Your task to perform on an android device: move an email to a new category in the gmail app Image 0: 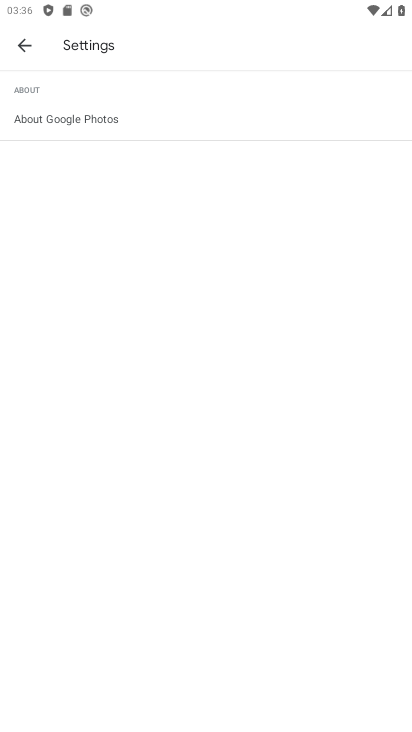
Step 0: press home button
Your task to perform on an android device: move an email to a new category in the gmail app Image 1: 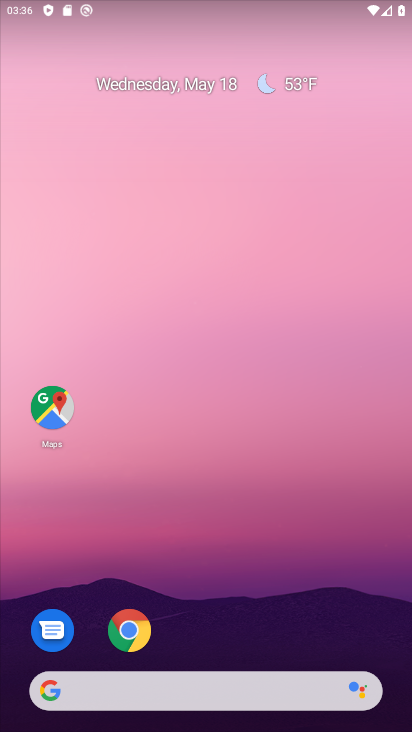
Step 1: drag from (198, 710) to (204, 11)
Your task to perform on an android device: move an email to a new category in the gmail app Image 2: 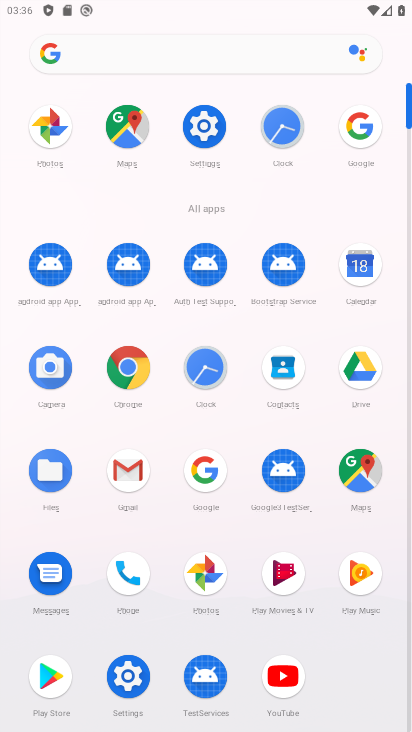
Step 2: click (125, 466)
Your task to perform on an android device: move an email to a new category in the gmail app Image 3: 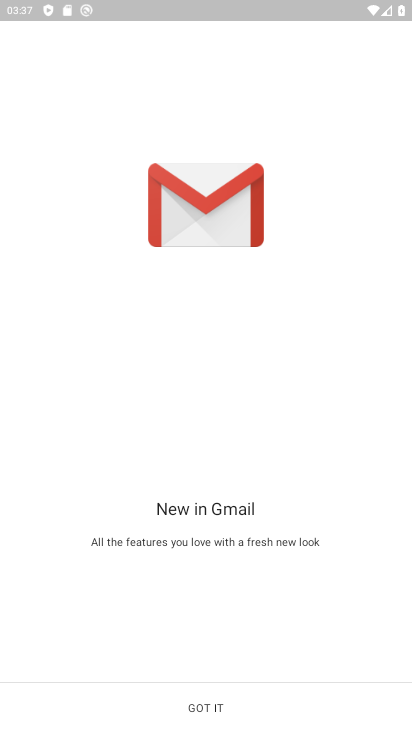
Step 3: click (213, 714)
Your task to perform on an android device: move an email to a new category in the gmail app Image 4: 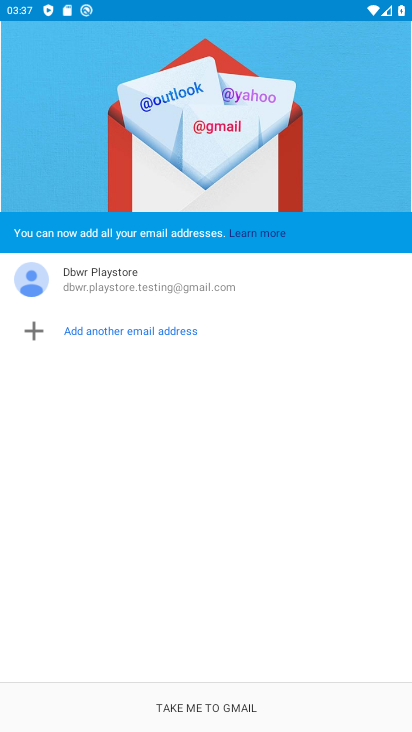
Step 4: click (213, 703)
Your task to perform on an android device: move an email to a new category in the gmail app Image 5: 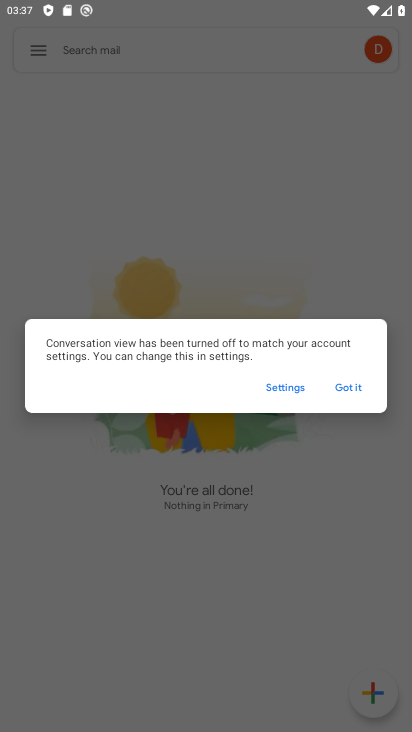
Step 5: click (352, 382)
Your task to perform on an android device: move an email to a new category in the gmail app Image 6: 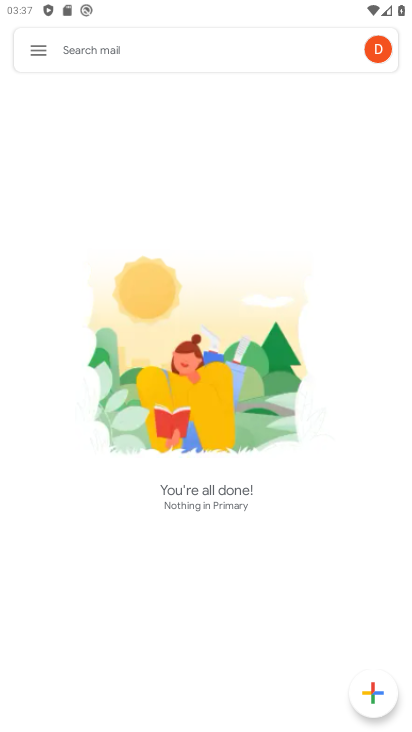
Step 6: task complete